Your task to perform on an android device: Search for seafood restaurants on Google Maps Image 0: 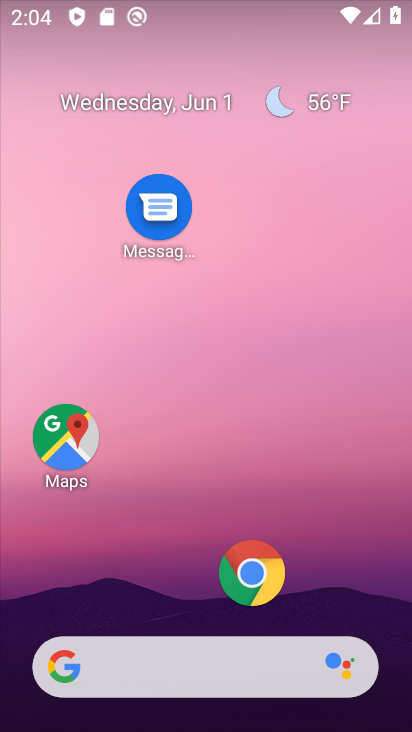
Step 0: drag from (217, 347) to (298, 70)
Your task to perform on an android device: Search for seafood restaurants on Google Maps Image 1: 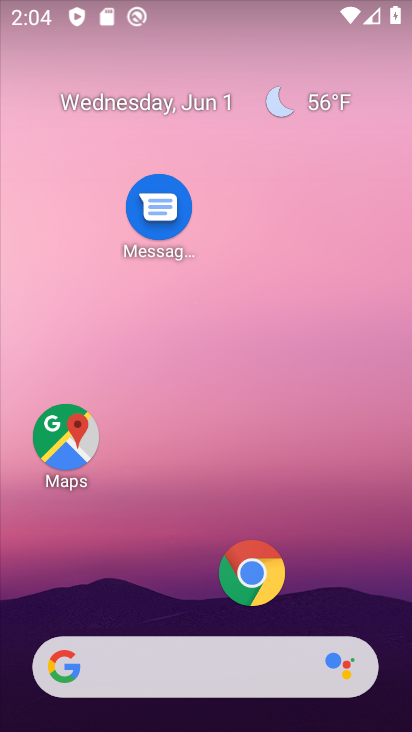
Step 1: drag from (159, 594) to (230, 108)
Your task to perform on an android device: Search for seafood restaurants on Google Maps Image 2: 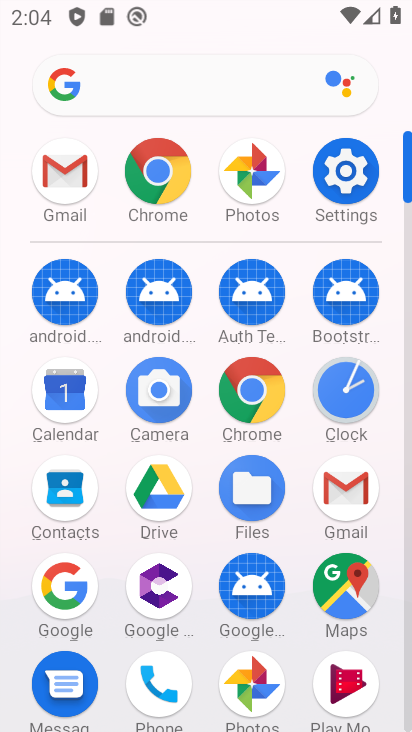
Step 2: click (333, 594)
Your task to perform on an android device: Search for seafood restaurants on Google Maps Image 3: 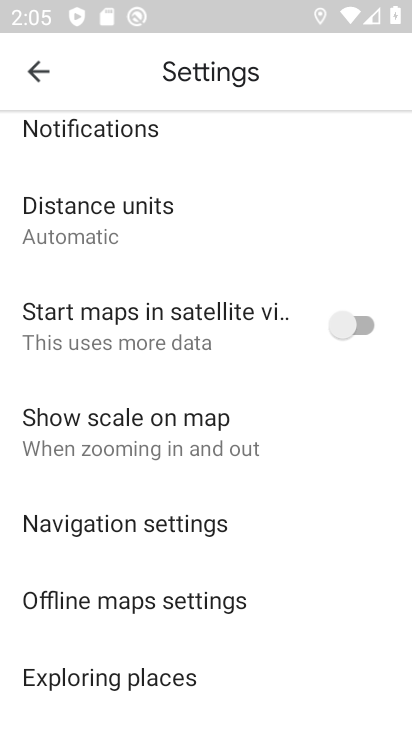
Step 3: click (35, 82)
Your task to perform on an android device: Search for seafood restaurants on Google Maps Image 4: 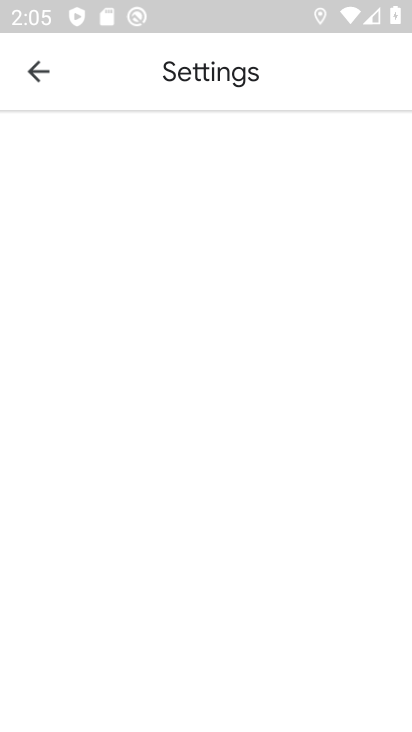
Step 4: click (25, 85)
Your task to perform on an android device: Search for seafood restaurants on Google Maps Image 5: 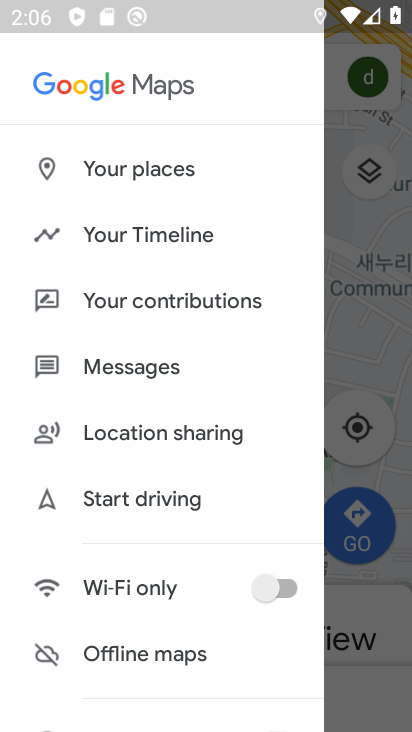
Step 5: click (382, 371)
Your task to perform on an android device: Search for seafood restaurants on Google Maps Image 6: 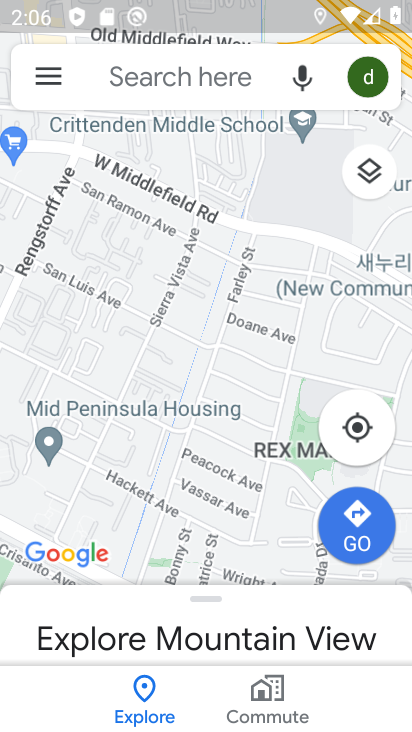
Step 6: click (177, 88)
Your task to perform on an android device: Search for seafood restaurants on Google Maps Image 7: 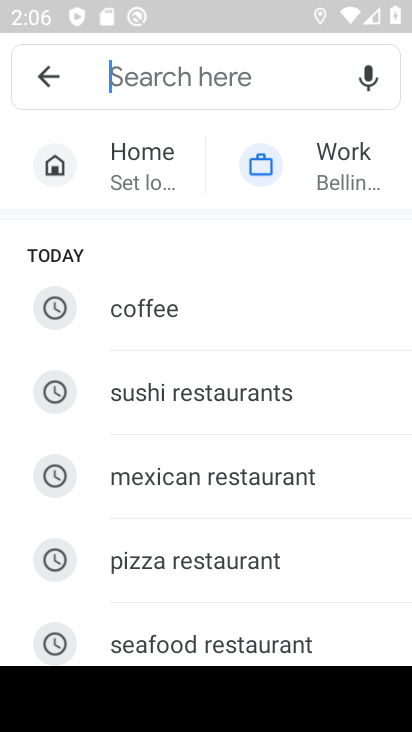
Step 7: click (159, 635)
Your task to perform on an android device: Search for seafood restaurants on Google Maps Image 8: 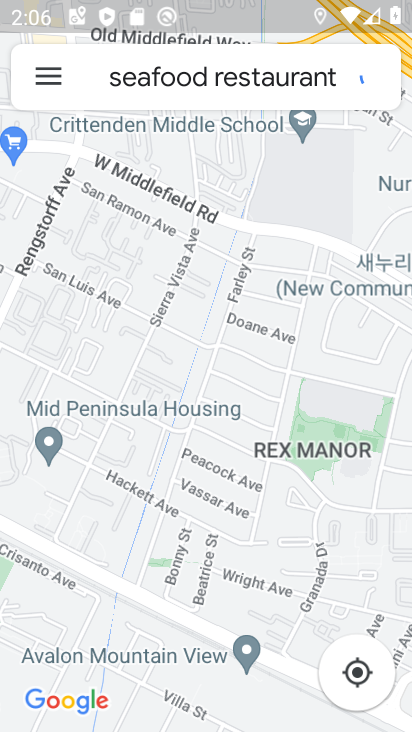
Step 8: task complete